Your task to perform on an android device: read, delete, or share a saved page in the chrome app Image 0: 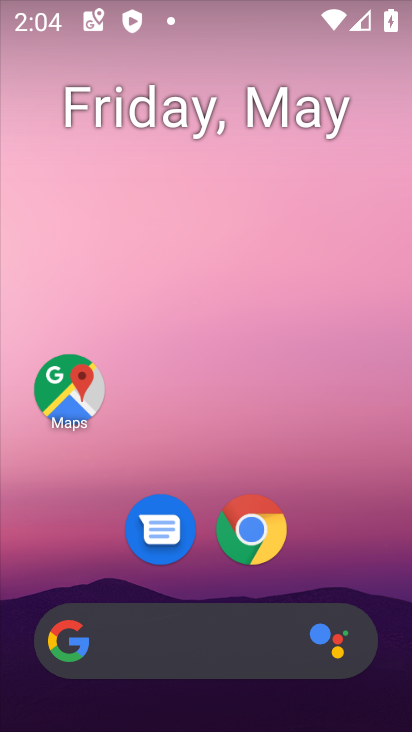
Step 0: drag from (320, 528) to (361, 221)
Your task to perform on an android device: read, delete, or share a saved page in the chrome app Image 1: 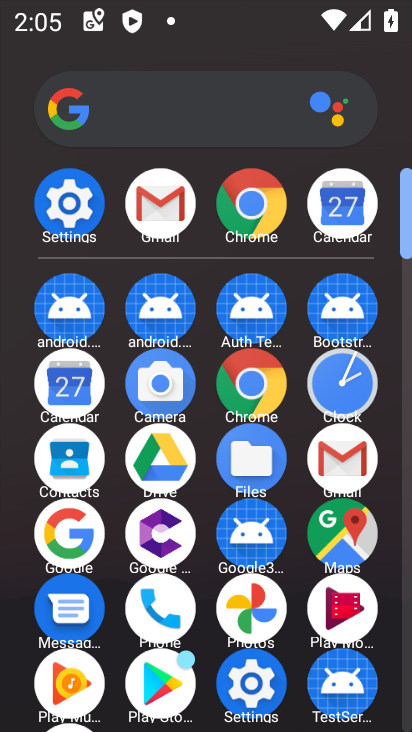
Step 1: click (242, 223)
Your task to perform on an android device: read, delete, or share a saved page in the chrome app Image 2: 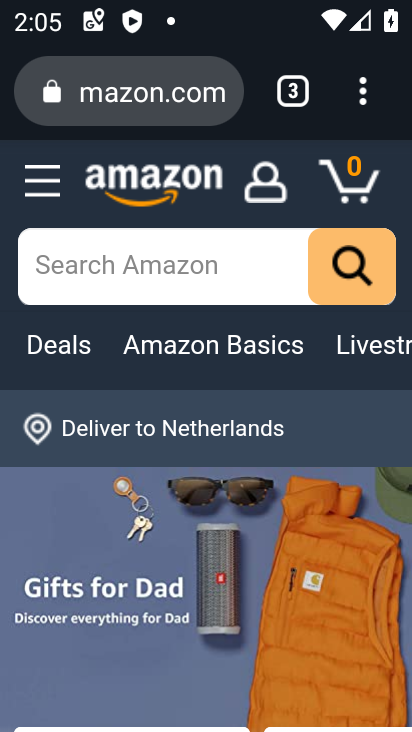
Step 2: click (365, 99)
Your task to perform on an android device: read, delete, or share a saved page in the chrome app Image 3: 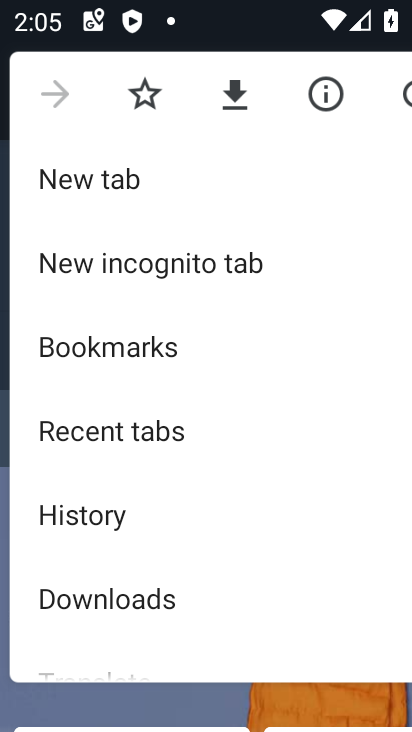
Step 3: click (127, 594)
Your task to perform on an android device: read, delete, or share a saved page in the chrome app Image 4: 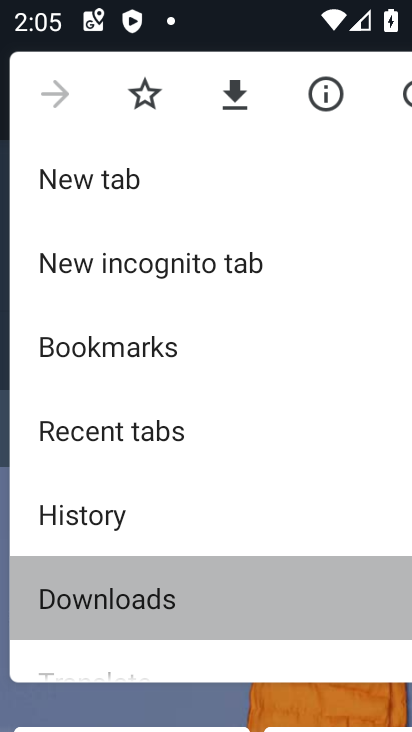
Step 4: click (127, 594)
Your task to perform on an android device: read, delete, or share a saved page in the chrome app Image 5: 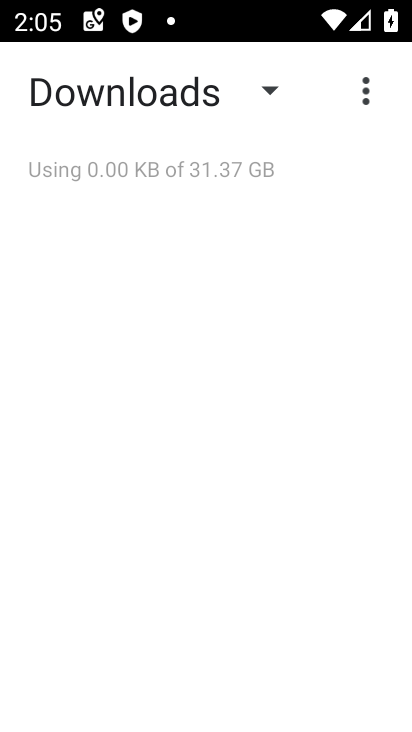
Step 5: task complete